Your task to perform on an android device: turn pop-ups on in chrome Image 0: 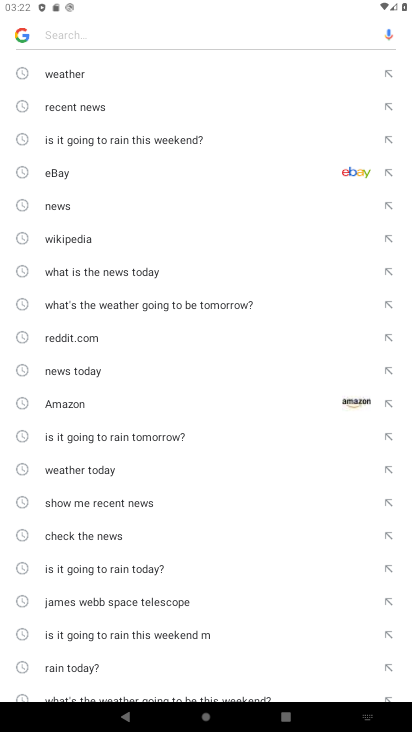
Step 0: press home button
Your task to perform on an android device: turn pop-ups on in chrome Image 1: 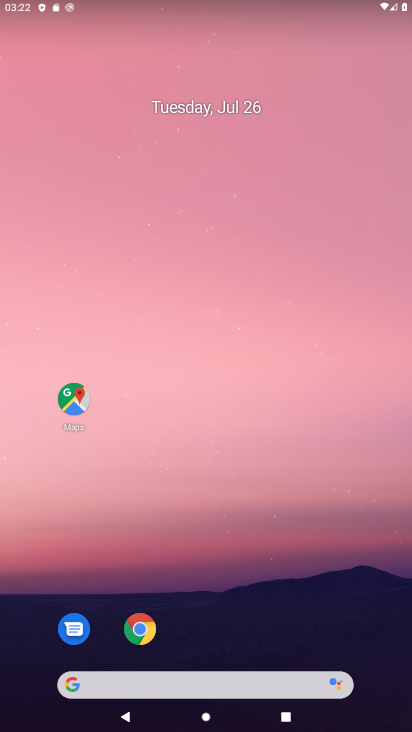
Step 1: drag from (299, 572) to (378, 8)
Your task to perform on an android device: turn pop-ups on in chrome Image 2: 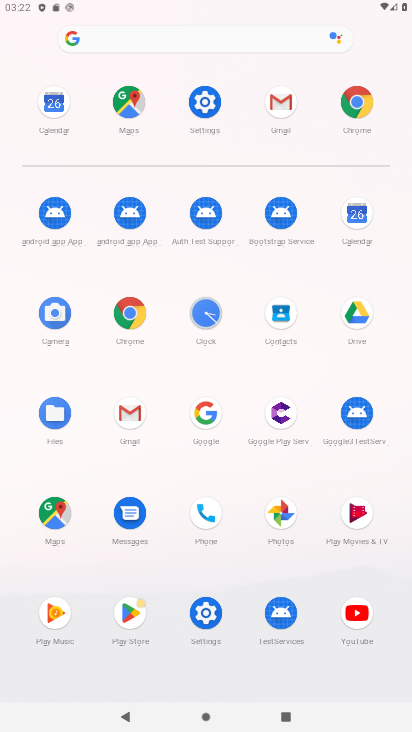
Step 2: click (130, 311)
Your task to perform on an android device: turn pop-ups on in chrome Image 3: 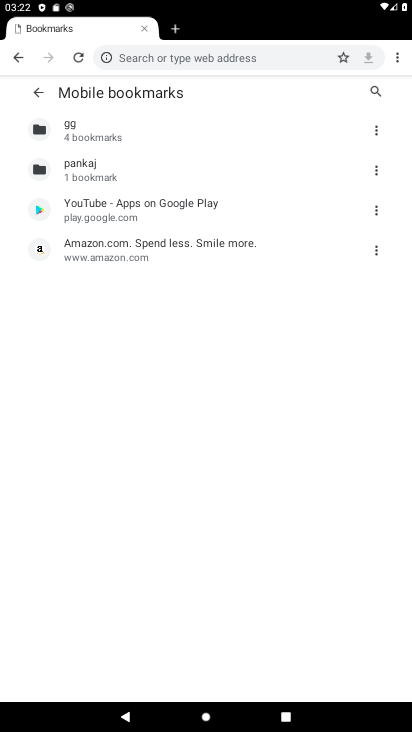
Step 3: drag from (394, 51) to (328, 263)
Your task to perform on an android device: turn pop-ups on in chrome Image 4: 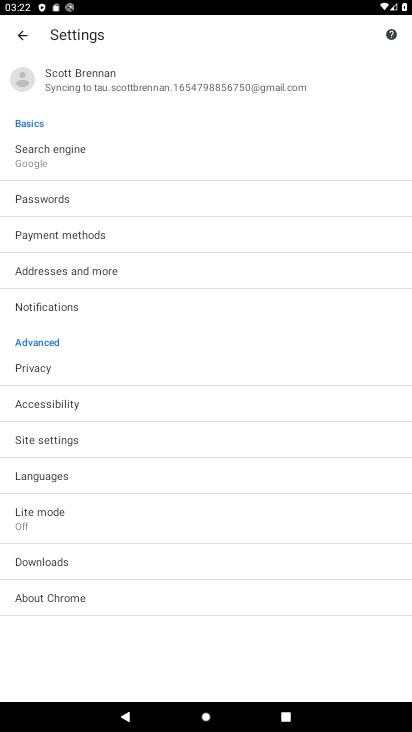
Step 4: click (79, 438)
Your task to perform on an android device: turn pop-ups on in chrome Image 5: 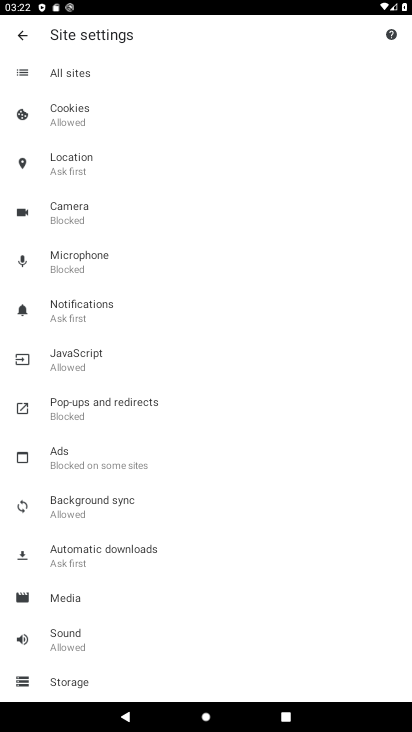
Step 5: click (141, 401)
Your task to perform on an android device: turn pop-ups on in chrome Image 6: 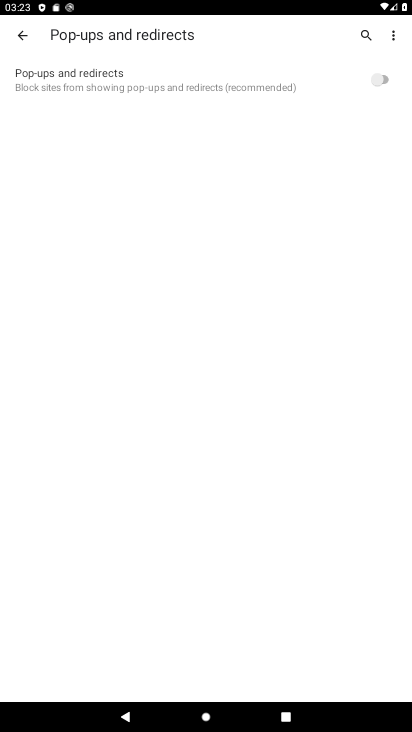
Step 6: click (311, 85)
Your task to perform on an android device: turn pop-ups on in chrome Image 7: 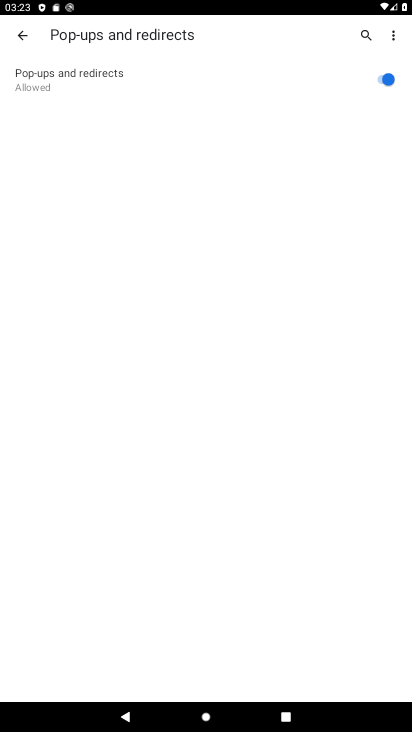
Step 7: task complete